Your task to perform on an android device: visit the assistant section in the google photos Image 0: 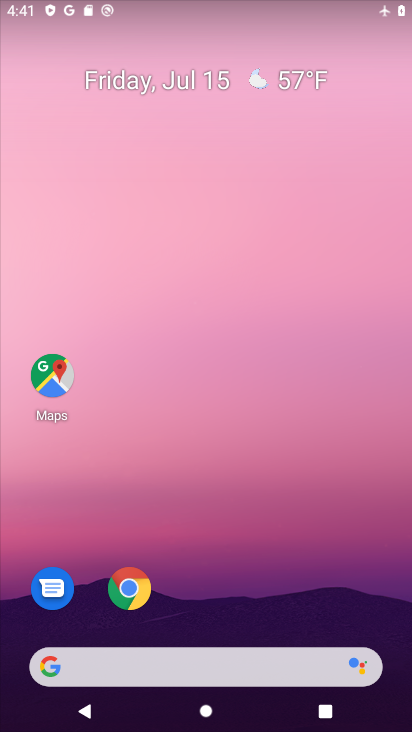
Step 0: drag from (238, 582) to (244, 92)
Your task to perform on an android device: visit the assistant section in the google photos Image 1: 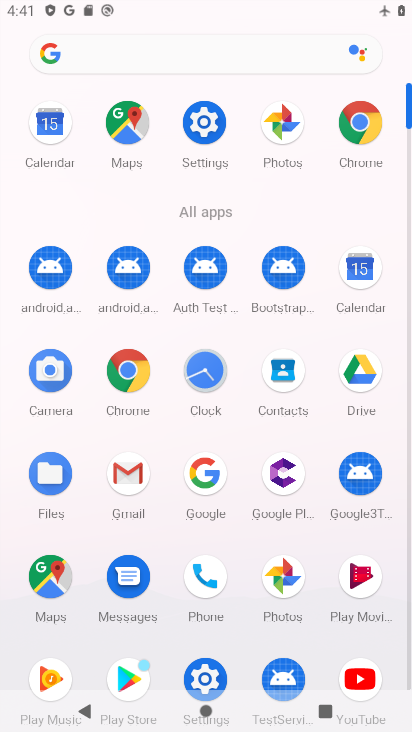
Step 1: click (283, 584)
Your task to perform on an android device: visit the assistant section in the google photos Image 2: 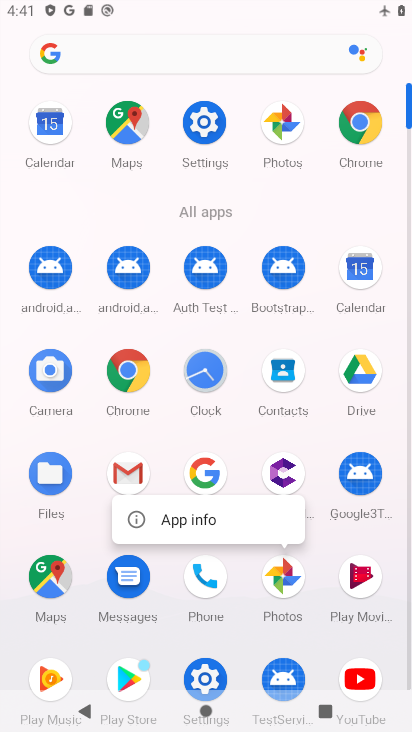
Step 2: click (276, 567)
Your task to perform on an android device: visit the assistant section in the google photos Image 3: 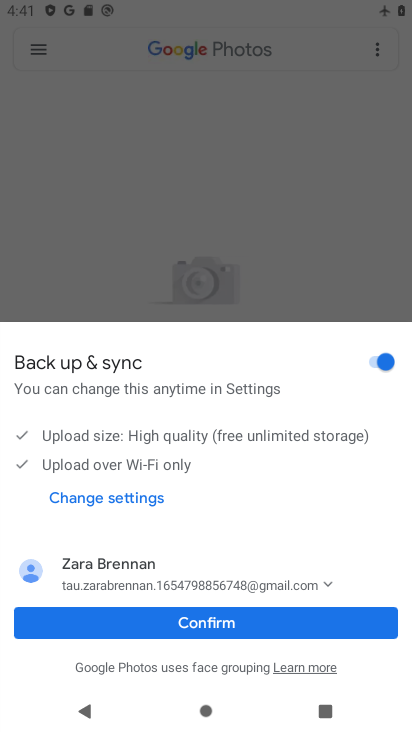
Step 3: click (308, 624)
Your task to perform on an android device: visit the assistant section in the google photos Image 4: 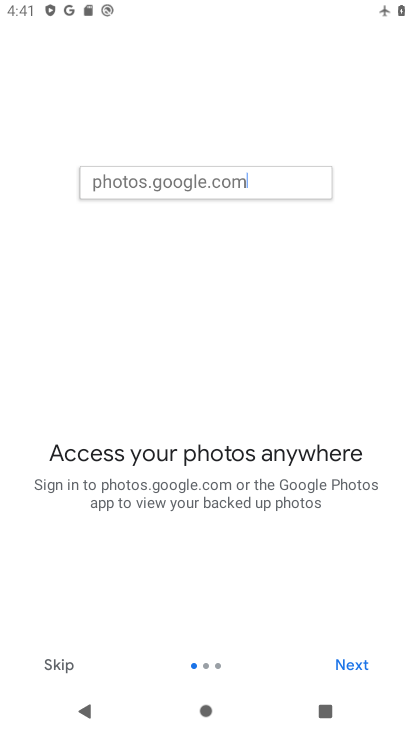
Step 4: click (57, 659)
Your task to perform on an android device: visit the assistant section in the google photos Image 5: 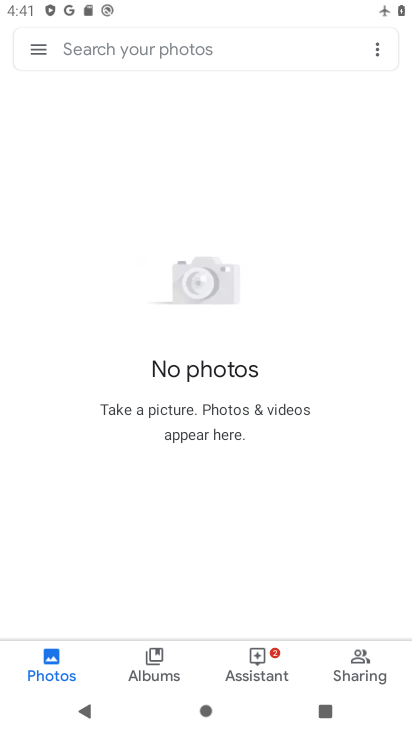
Step 5: click (245, 668)
Your task to perform on an android device: visit the assistant section in the google photos Image 6: 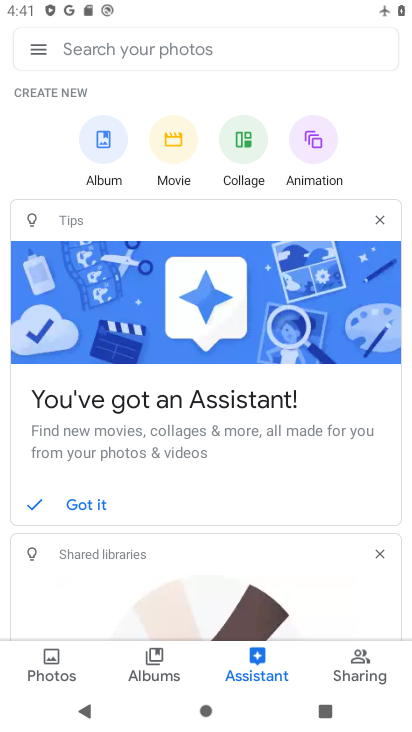
Step 6: task complete